Your task to perform on an android device: Go to display settings Image 0: 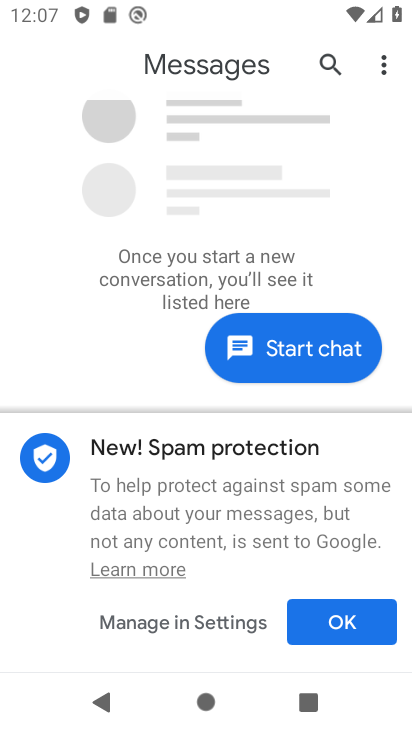
Step 0: press home button
Your task to perform on an android device: Go to display settings Image 1: 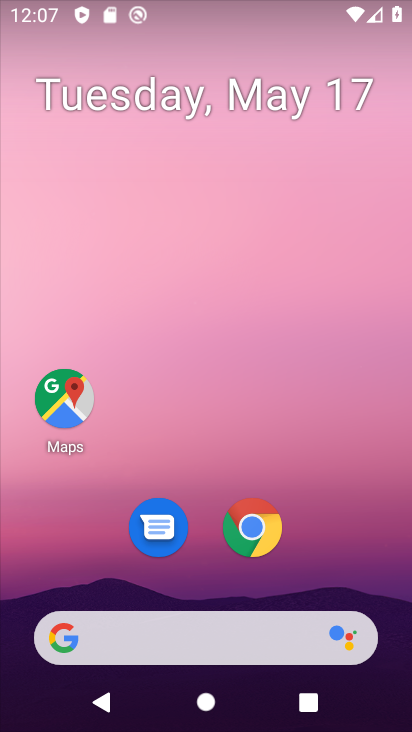
Step 1: drag from (376, 592) to (371, 81)
Your task to perform on an android device: Go to display settings Image 2: 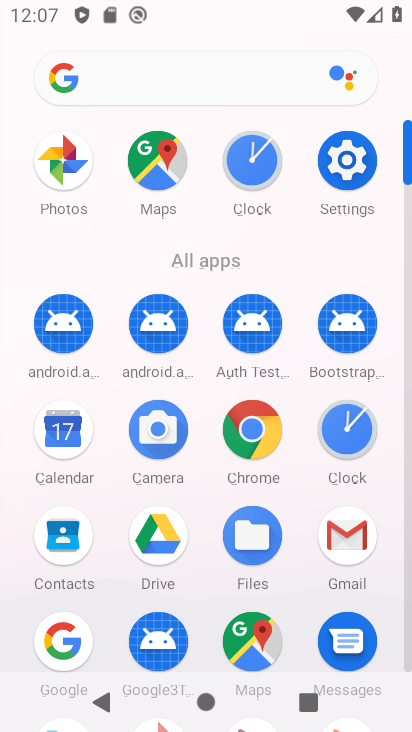
Step 2: click (355, 172)
Your task to perform on an android device: Go to display settings Image 3: 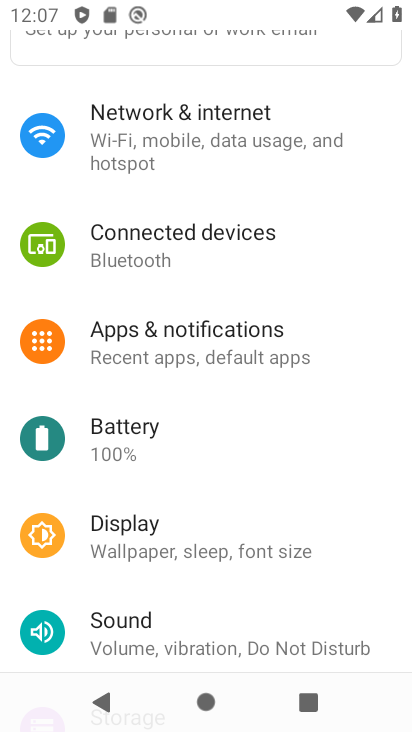
Step 3: click (213, 530)
Your task to perform on an android device: Go to display settings Image 4: 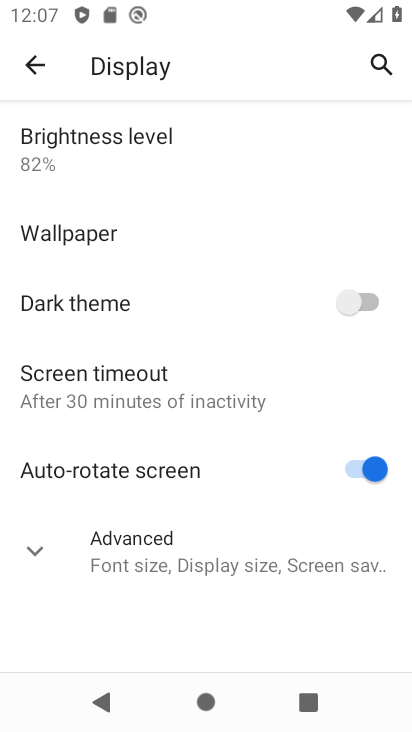
Step 4: click (211, 547)
Your task to perform on an android device: Go to display settings Image 5: 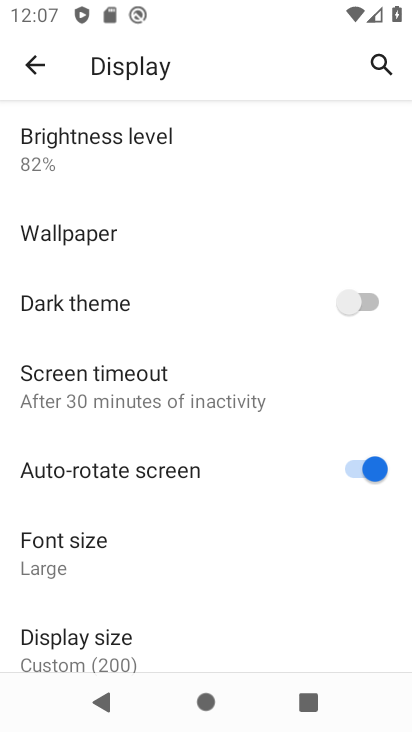
Step 5: task complete